Your task to perform on an android device: turn on notifications settings in the gmail app Image 0: 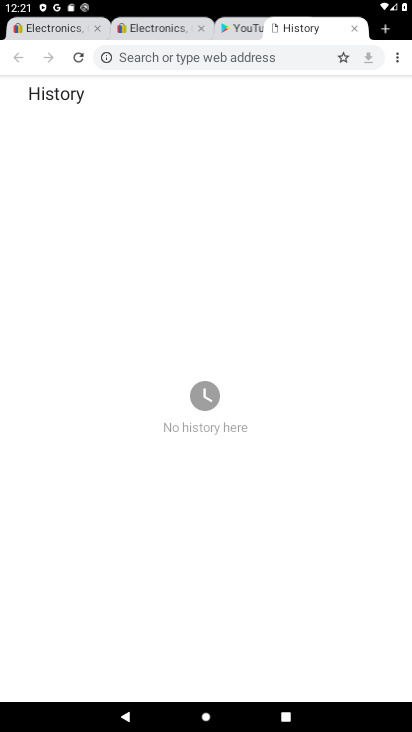
Step 0: press home button
Your task to perform on an android device: turn on notifications settings in the gmail app Image 1: 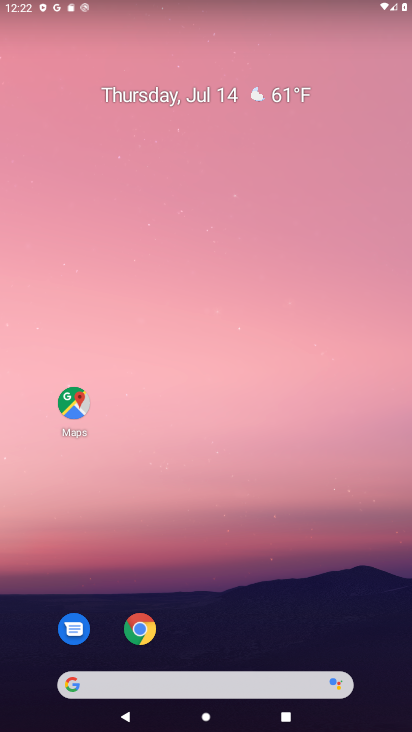
Step 1: drag from (213, 631) to (204, 76)
Your task to perform on an android device: turn on notifications settings in the gmail app Image 2: 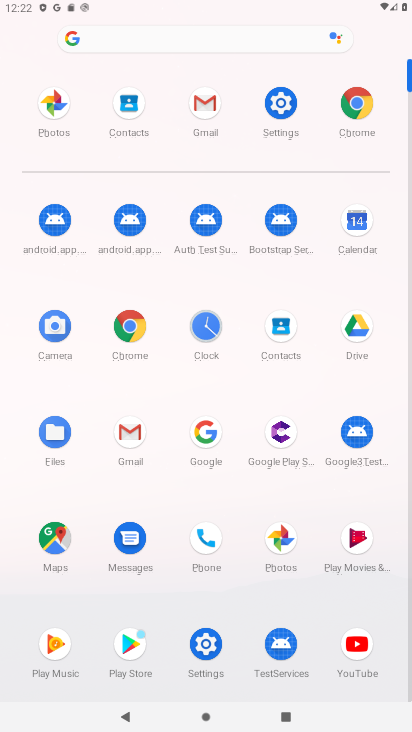
Step 2: click (196, 108)
Your task to perform on an android device: turn on notifications settings in the gmail app Image 3: 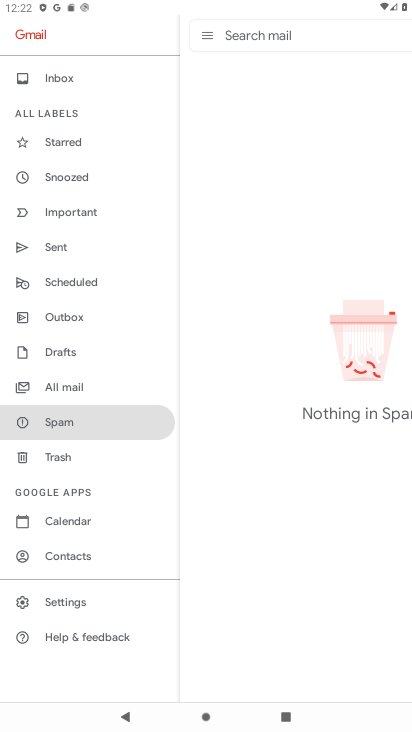
Step 3: click (55, 595)
Your task to perform on an android device: turn on notifications settings in the gmail app Image 4: 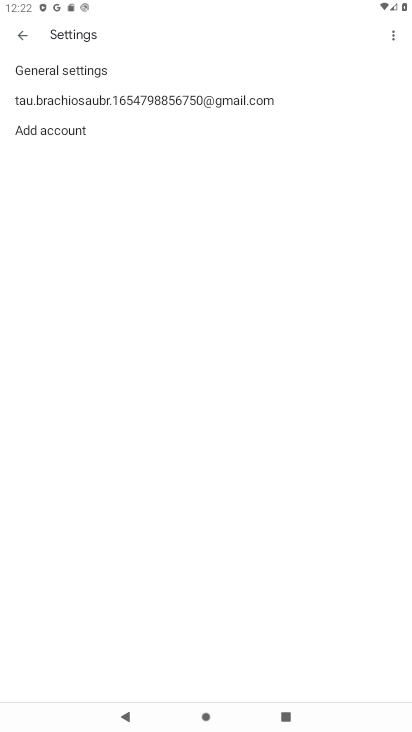
Step 4: click (294, 106)
Your task to perform on an android device: turn on notifications settings in the gmail app Image 5: 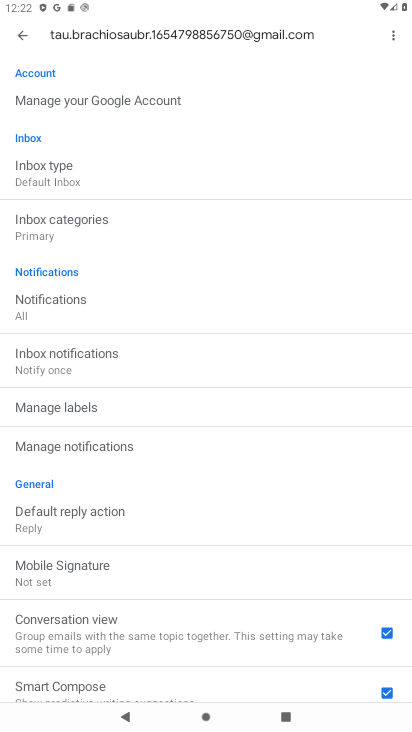
Step 5: click (44, 319)
Your task to perform on an android device: turn on notifications settings in the gmail app Image 6: 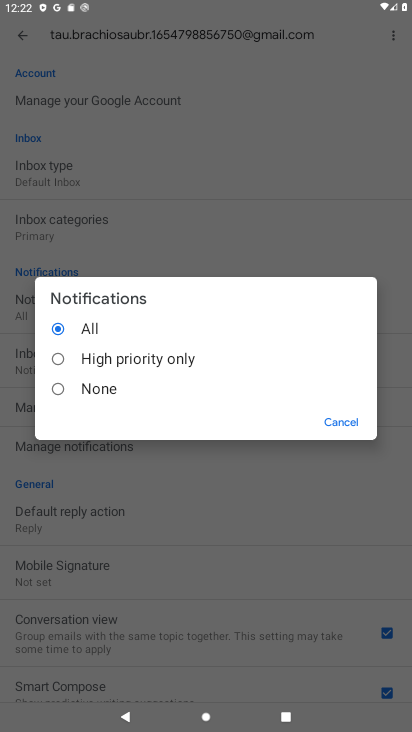
Step 6: task complete